Your task to perform on an android device: Search for "macbook pro 13 inch" on target.com, select the first entry, add it to the cart, then select checkout. Image 0: 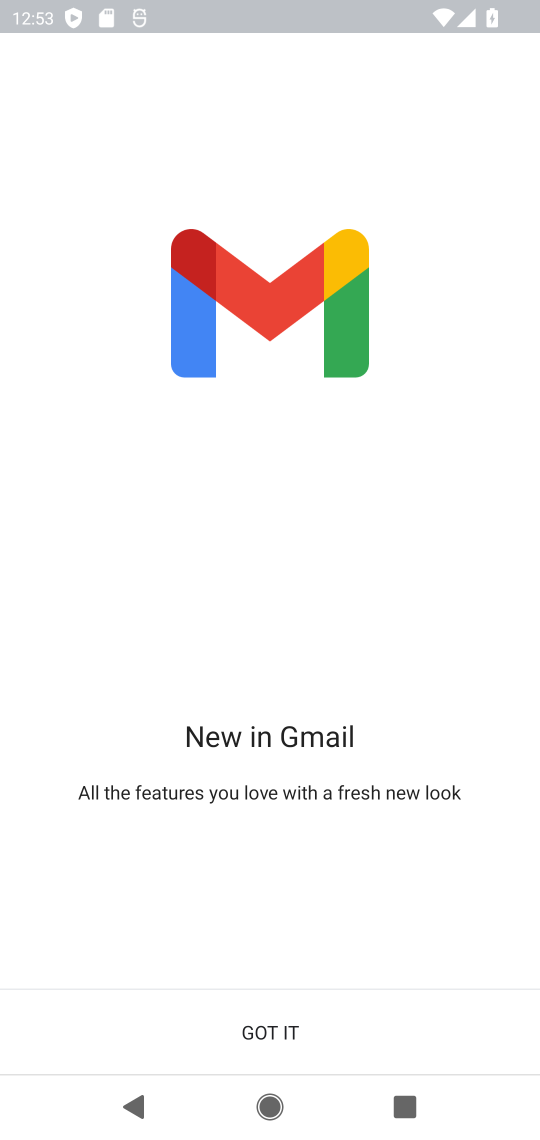
Step 0: press home button
Your task to perform on an android device: Search for "macbook pro 13 inch" on target.com, select the first entry, add it to the cart, then select checkout. Image 1: 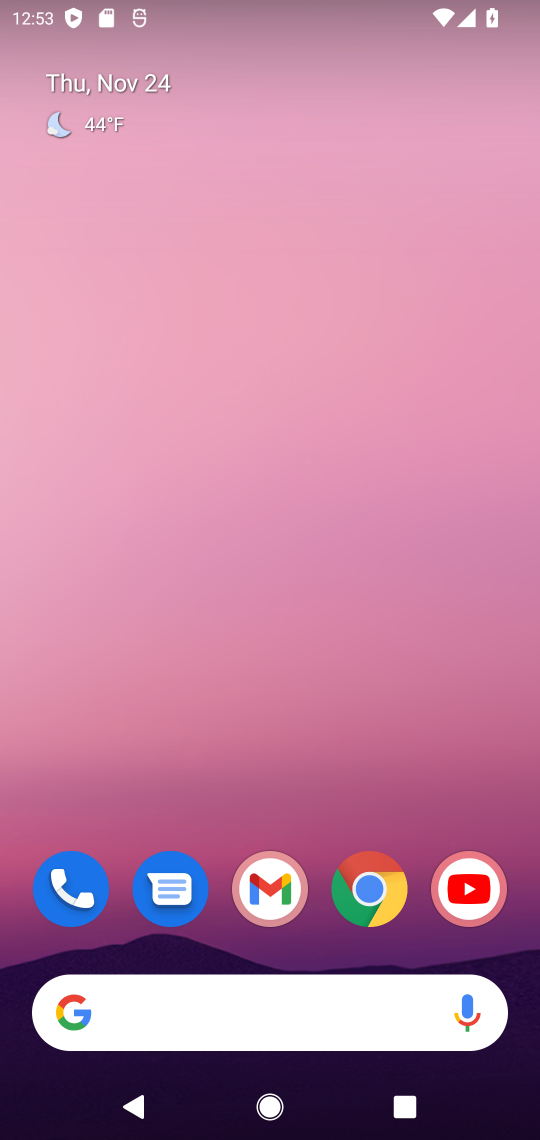
Step 1: click (376, 889)
Your task to perform on an android device: Search for "macbook pro 13 inch" on target.com, select the first entry, add it to the cart, then select checkout. Image 2: 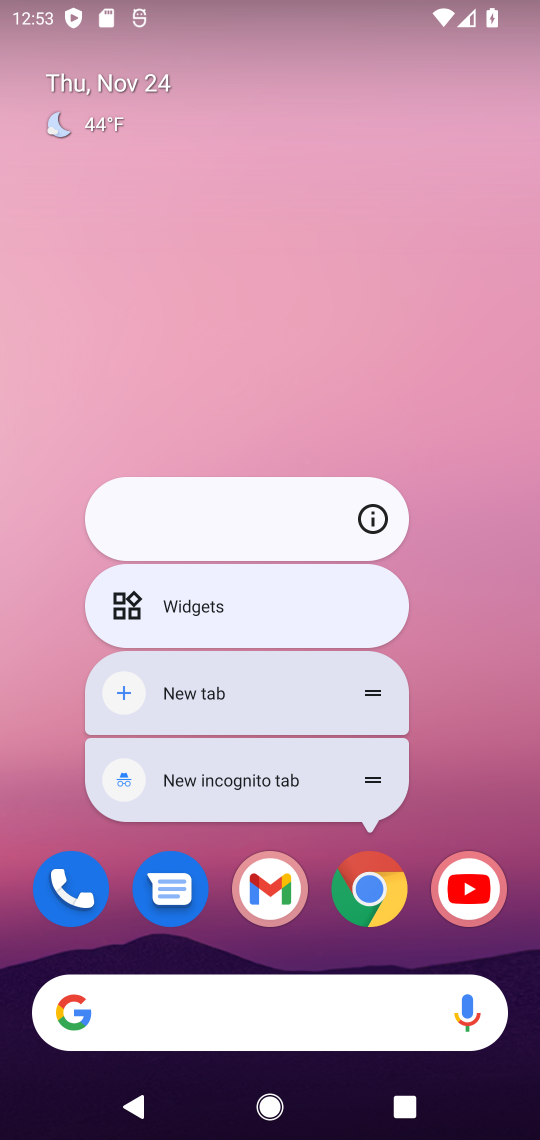
Step 2: click (371, 878)
Your task to perform on an android device: Search for "macbook pro 13 inch" on target.com, select the first entry, add it to the cart, then select checkout. Image 3: 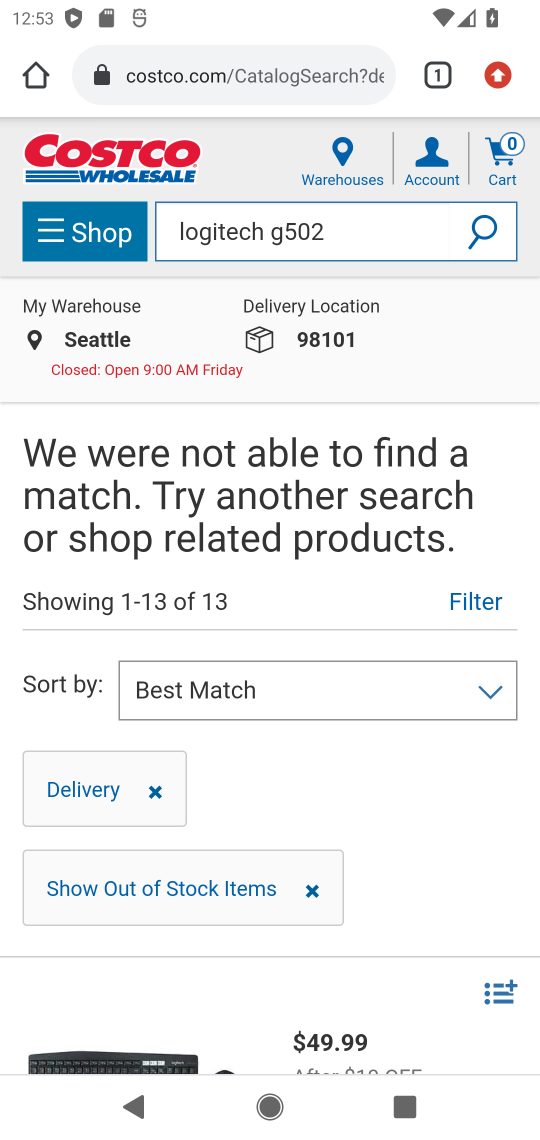
Step 3: click (255, 78)
Your task to perform on an android device: Search for "macbook pro 13 inch" on target.com, select the first entry, add it to the cart, then select checkout. Image 4: 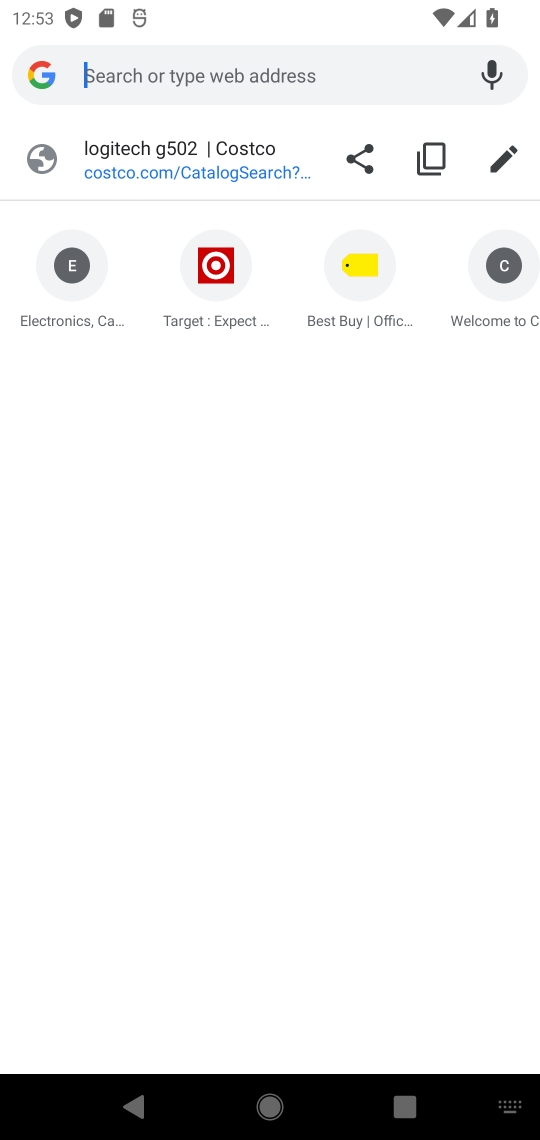
Step 4: click (222, 266)
Your task to perform on an android device: Search for "macbook pro 13 inch" on target.com, select the first entry, add it to the cart, then select checkout. Image 5: 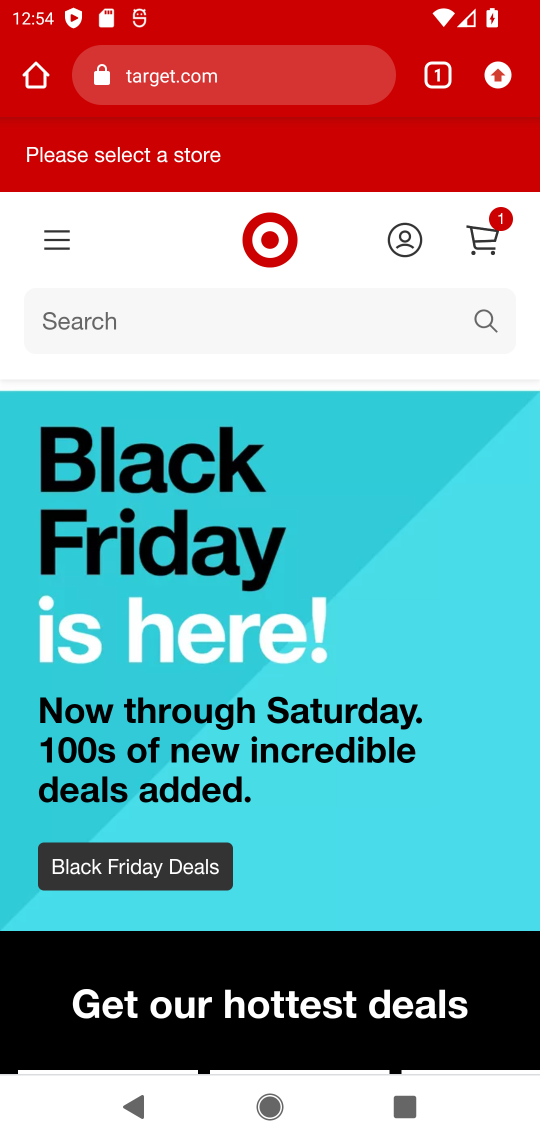
Step 5: click (480, 326)
Your task to perform on an android device: Search for "macbook pro 13 inch" on target.com, select the first entry, add it to the cart, then select checkout. Image 6: 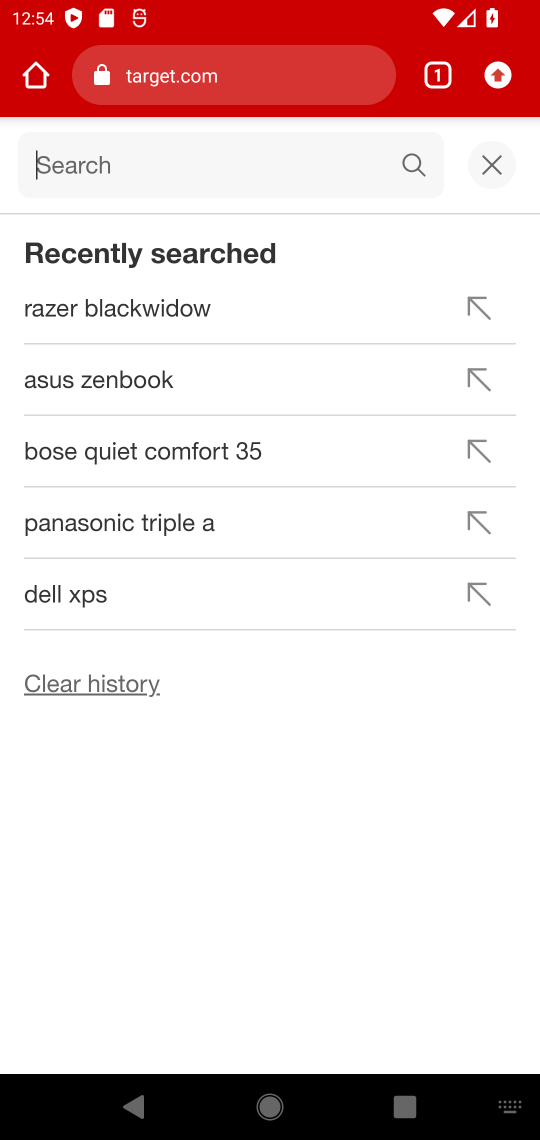
Step 6: type "macbook pro 13 inch"
Your task to perform on an android device: Search for "macbook pro 13 inch" on target.com, select the first entry, add it to the cart, then select checkout. Image 7: 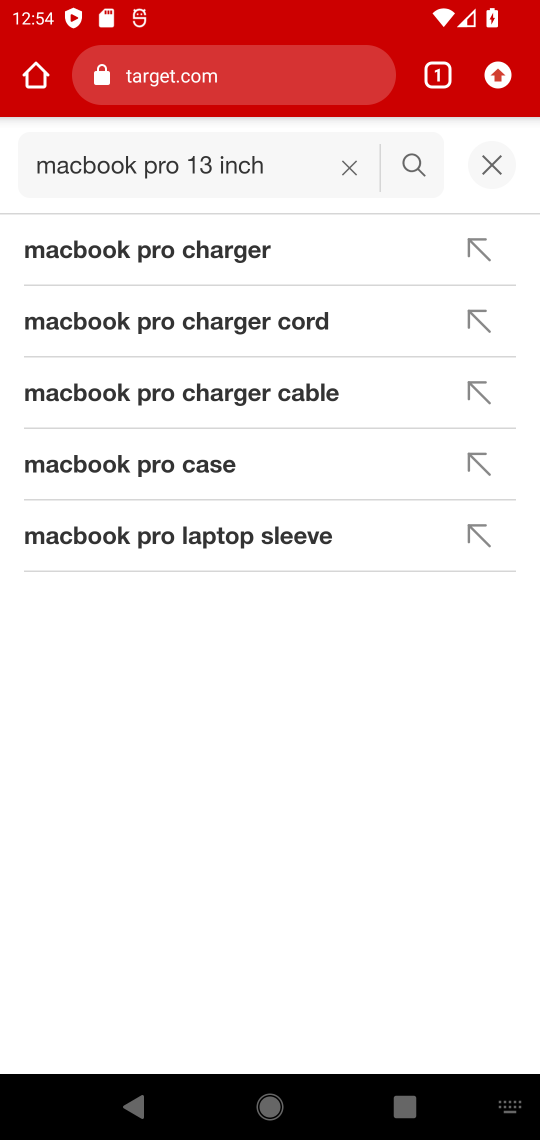
Step 7: click (412, 168)
Your task to perform on an android device: Search for "macbook pro 13 inch" on target.com, select the first entry, add it to the cart, then select checkout. Image 8: 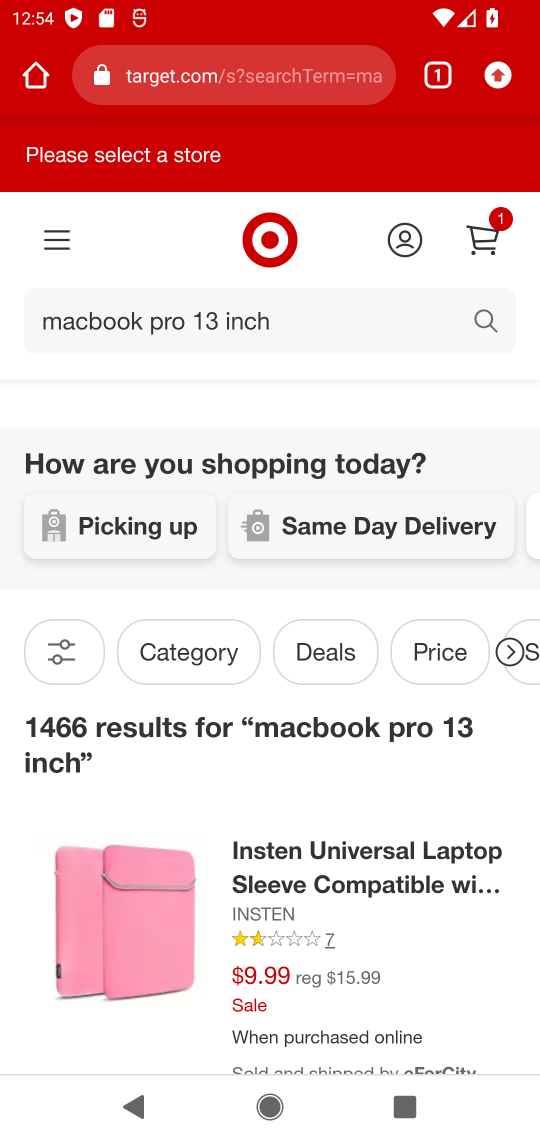
Step 8: drag from (162, 910) to (189, 718)
Your task to perform on an android device: Search for "macbook pro 13 inch" on target.com, select the first entry, add it to the cart, then select checkout. Image 9: 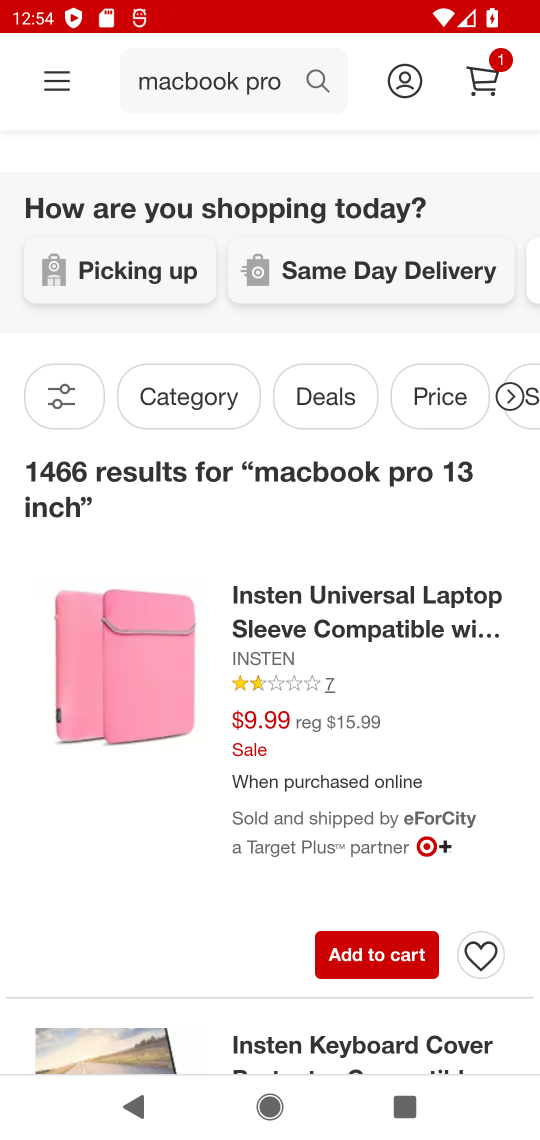
Step 9: click (403, 748)
Your task to perform on an android device: Search for "macbook pro 13 inch" on target.com, select the first entry, add it to the cart, then select checkout. Image 10: 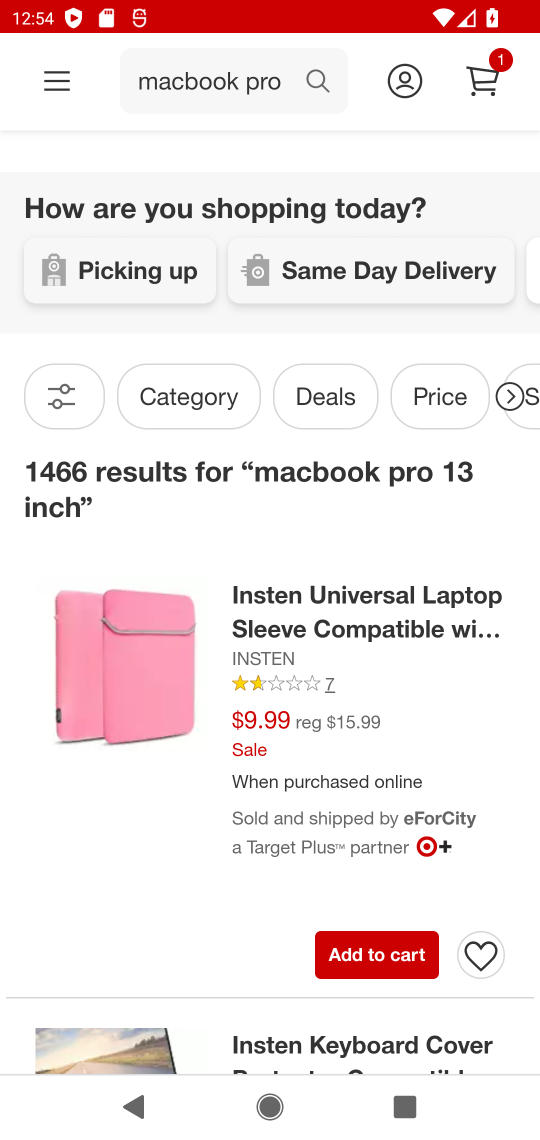
Step 10: click (228, 619)
Your task to perform on an android device: Search for "macbook pro 13 inch" on target.com, select the first entry, add it to the cart, then select checkout. Image 11: 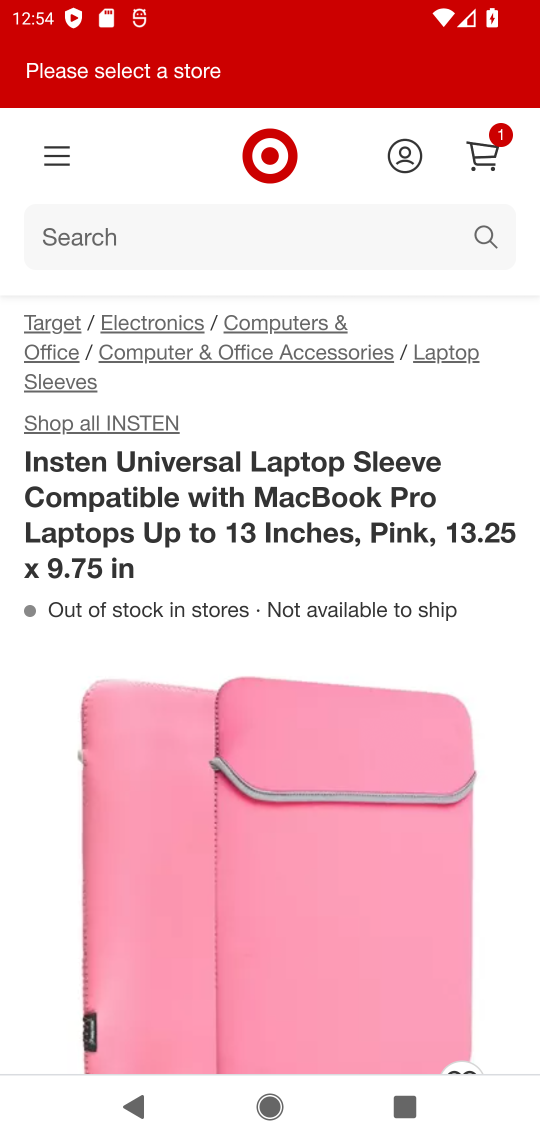
Step 11: drag from (228, 619) to (240, 357)
Your task to perform on an android device: Search for "macbook pro 13 inch" on target.com, select the first entry, add it to the cart, then select checkout. Image 12: 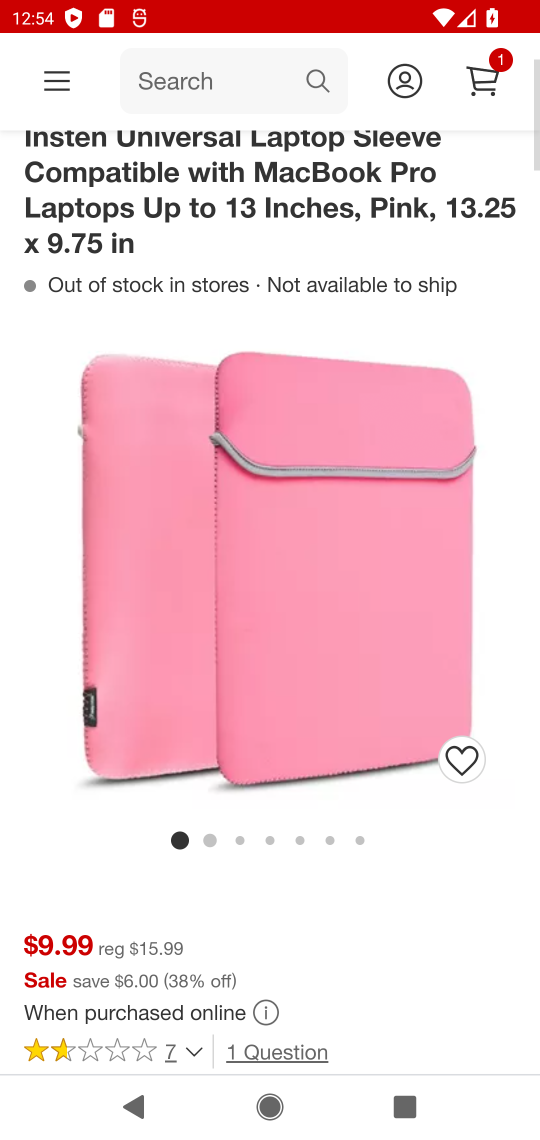
Step 12: drag from (173, 793) to (224, 405)
Your task to perform on an android device: Search for "macbook pro 13 inch" on target.com, select the first entry, add it to the cart, then select checkout. Image 13: 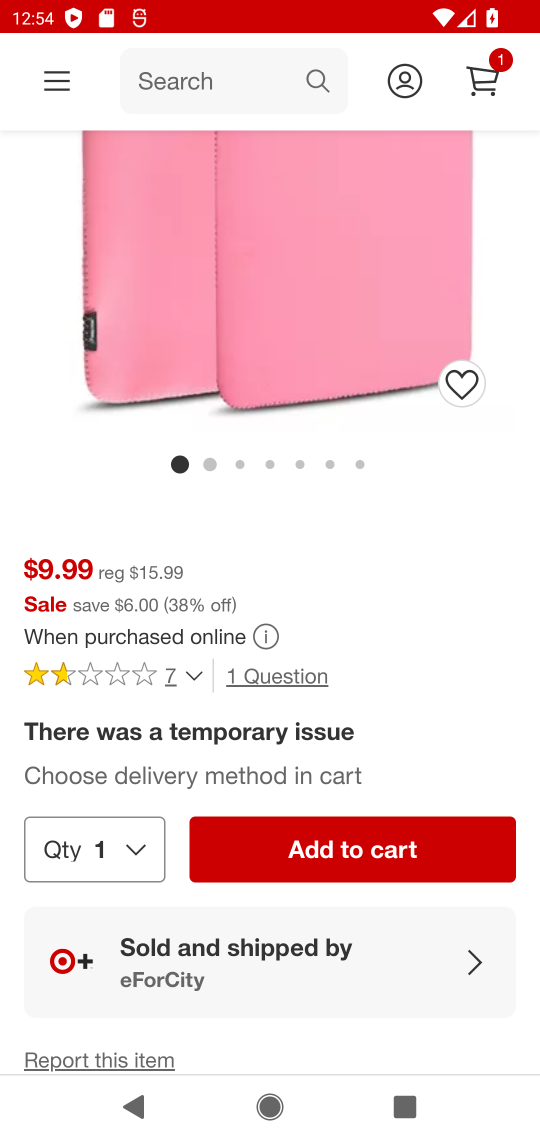
Step 13: click (305, 843)
Your task to perform on an android device: Search for "macbook pro 13 inch" on target.com, select the first entry, add it to the cart, then select checkout. Image 14: 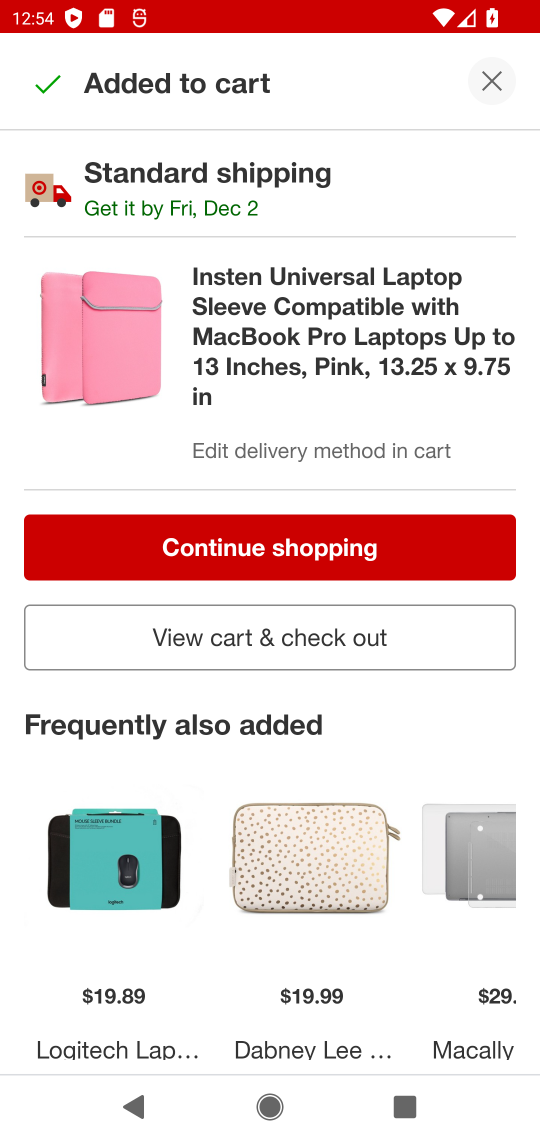
Step 14: click (235, 645)
Your task to perform on an android device: Search for "macbook pro 13 inch" on target.com, select the first entry, add it to the cart, then select checkout. Image 15: 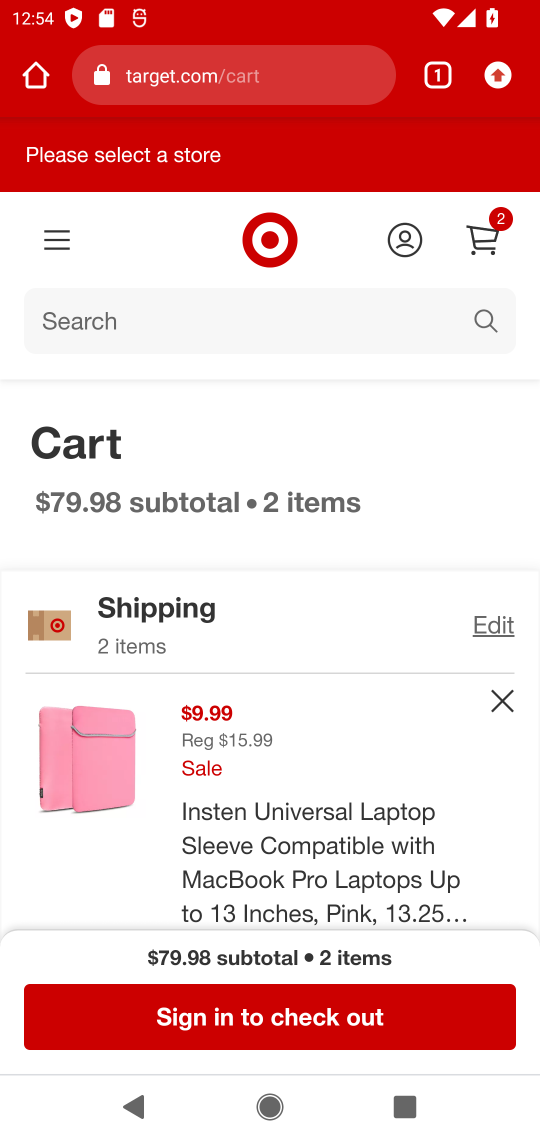
Step 15: click (219, 1009)
Your task to perform on an android device: Search for "macbook pro 13 inch" on target.com, select the first entry, add it to the cart, then select checkout. Image 16: 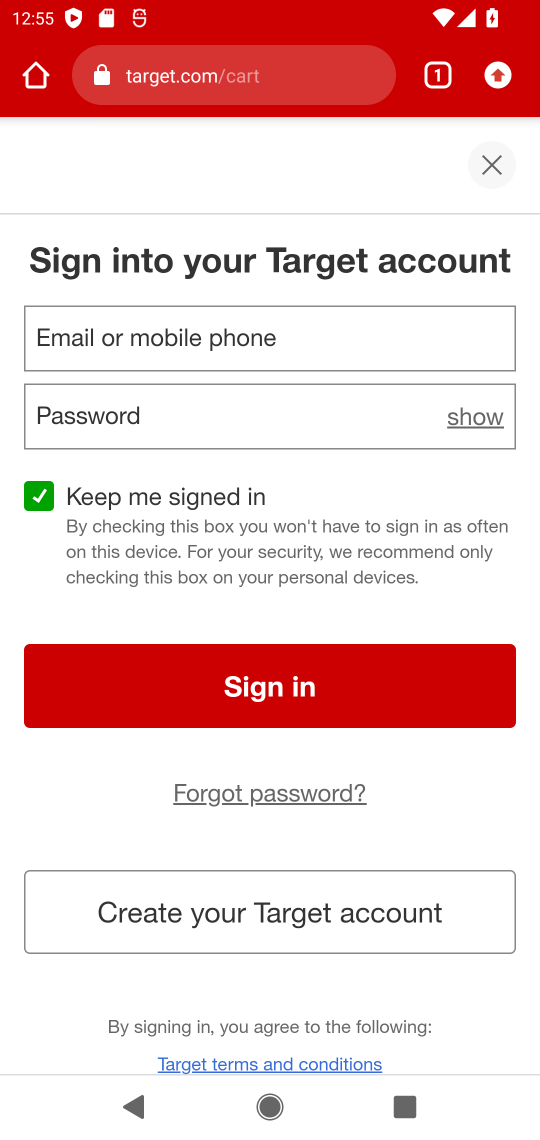
Step 16: task complete